Your task to perform on an android device: Open Android settings Image 0: 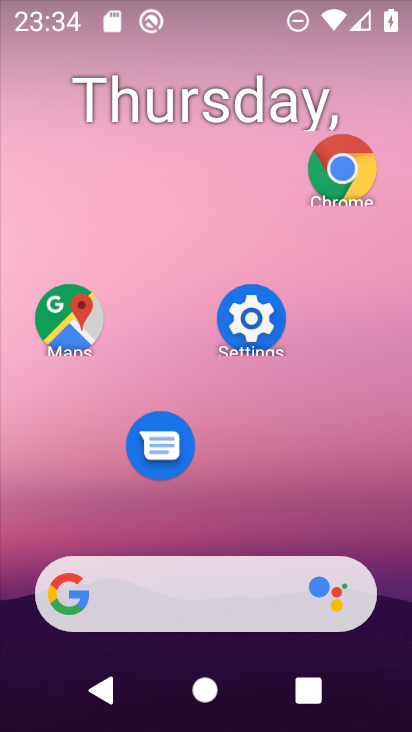
Step 0: drag from (210, 513) to (188, 114)
Your task to perform on an android device: Open Android settings Image 1: 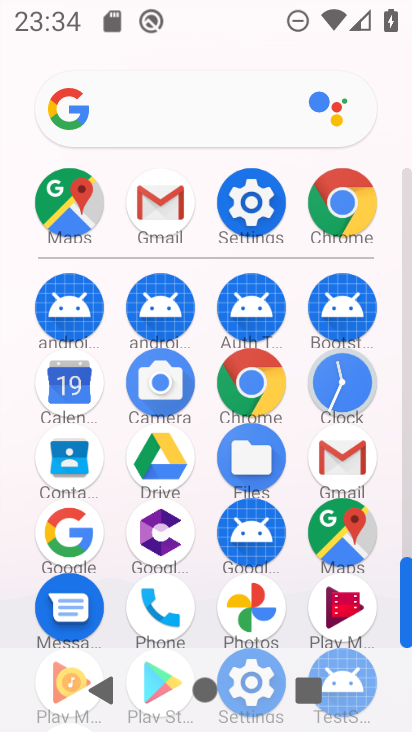
Step 1: click (241, 192)
Your task to perform on an android device: Open Android settings Image 2: 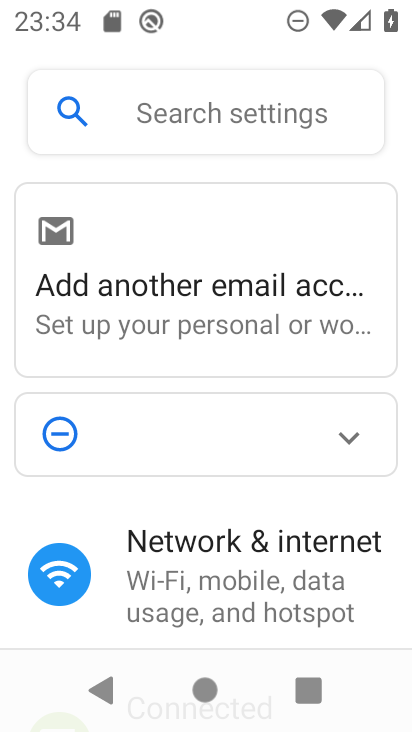
Step 2: drag from (261, 514) to (287, 111)
Your task to perform on an android device: Open Android settings Image 3: 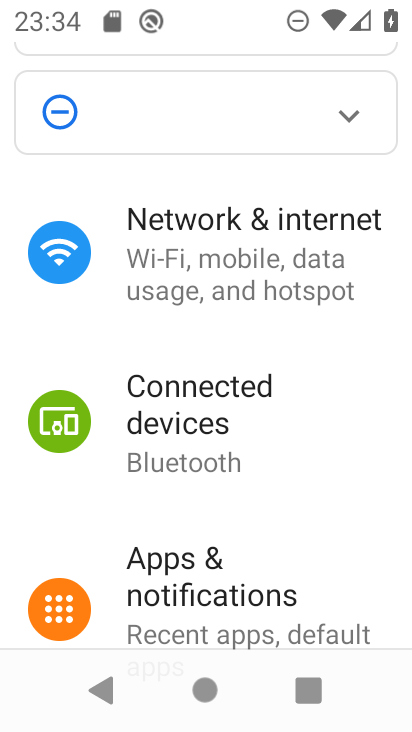
Step 3: drag from (222, 572) to (297, 111)
Your task to perform on an android device: Open Android settings Image 4: 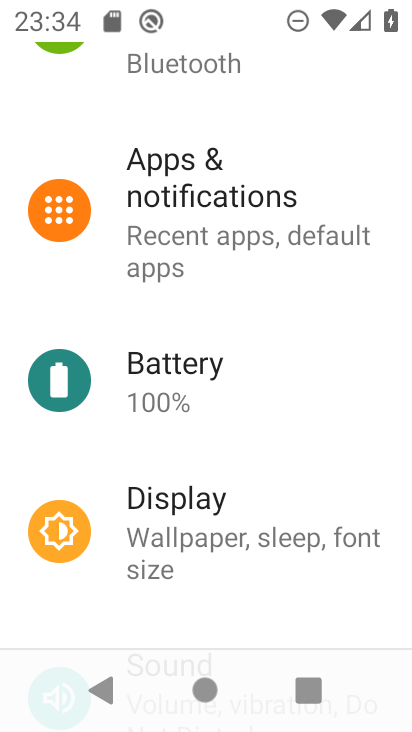
Step 4: drag from (243, 546) to (271, 152)
Your task to perform on an android device: Open Android settings Image 5: 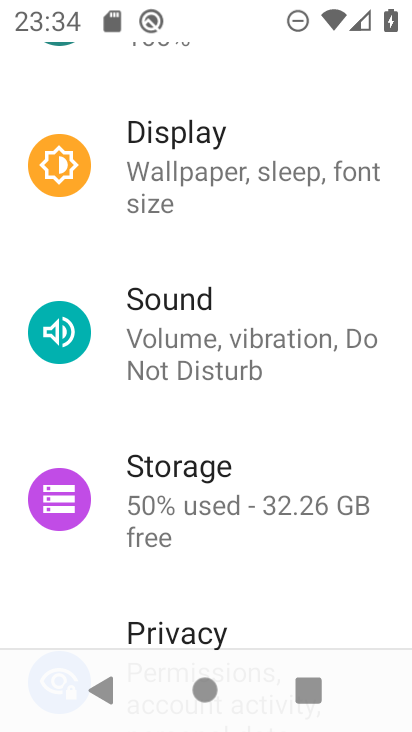
Step 5: drag from (208, 580) to (239, 177)
Your task to perform on an android device: Open Android settings Image 6: 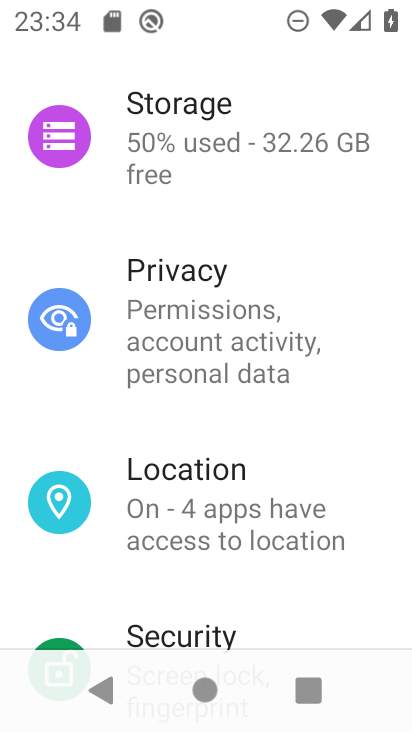
Step 6: drag from (226, 549) to (255, 164)
Your task to perform on an android device: Open Android settings Image 7: 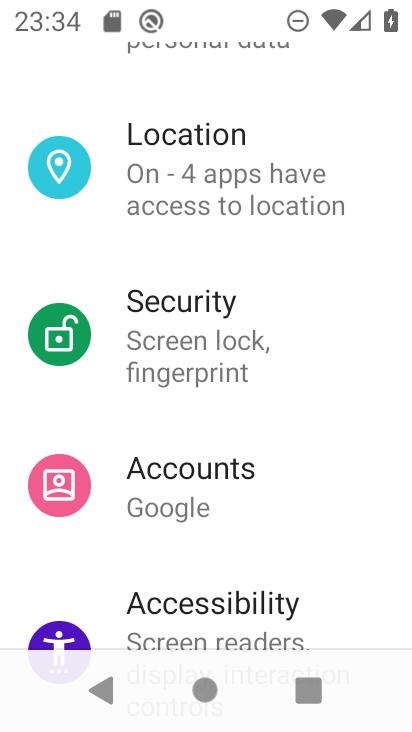
Step 7: drag from (234, 518) to (401, 524)
Your task to perform on an android device: Open Android settings Image 8: 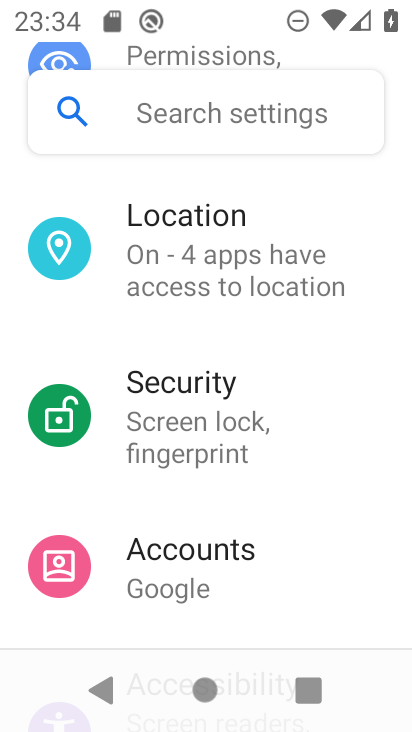
Step 8: drag from (228, 572) to (261, 173)
Your task to perform on an android device: Open Android settings Image 9: 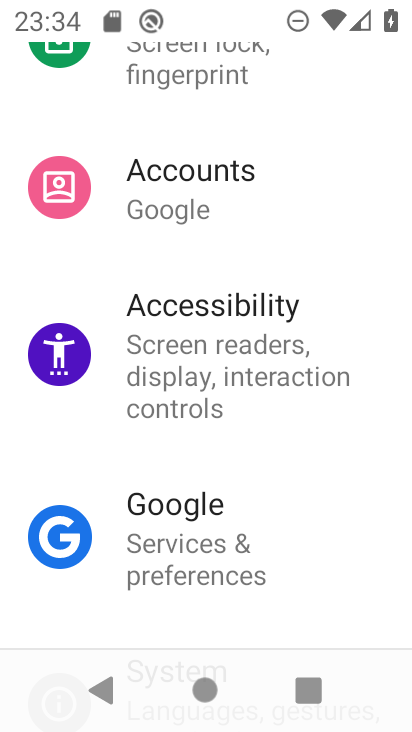
Step 9: drag from (232, 569) to (285, 143)
Your task to perform on an android device: Open Android settings Image 10: 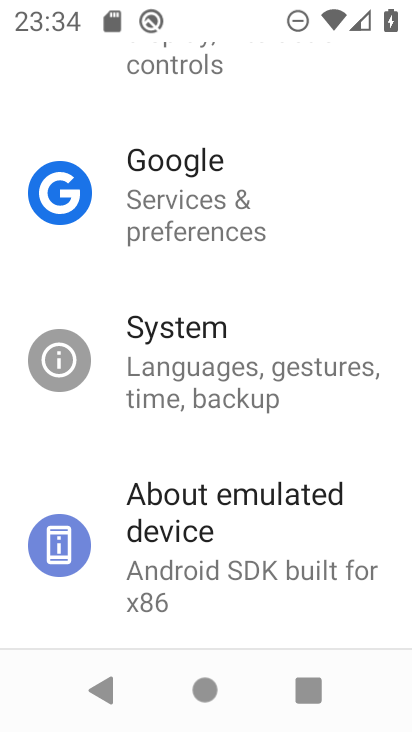
Step 10: click (202, 543)
Your task to perform on an android device: Open Android settings Image 11: 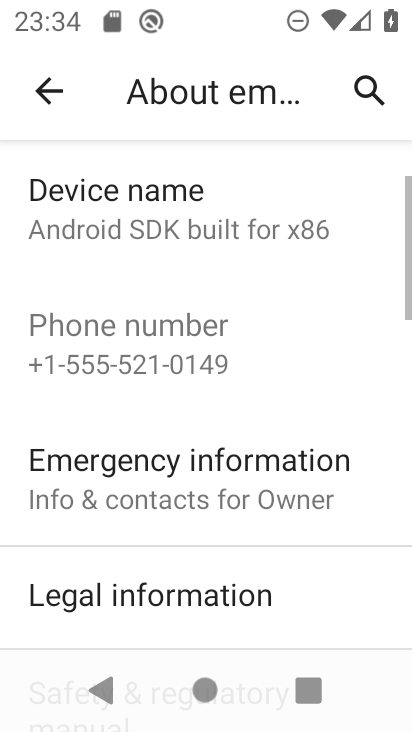
Step 11: drag from (213, 499) to (259, 115)
Your task to perform on an android device: Open Android settings Image 12: 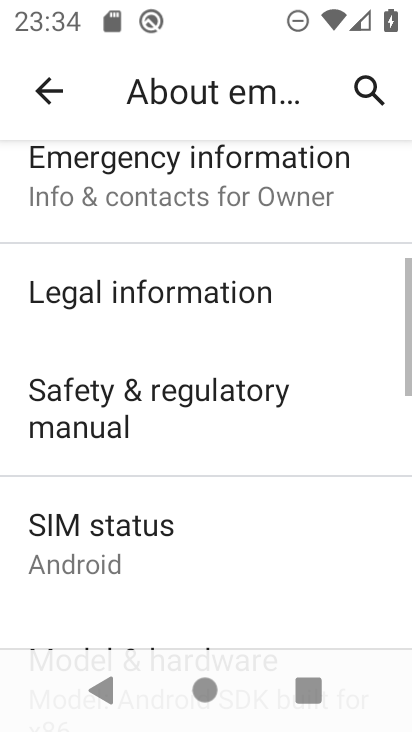
Step 12: drag from (171, 551) to (238, 177)
Your task to perform on an android device: Open Android settings Image 13: 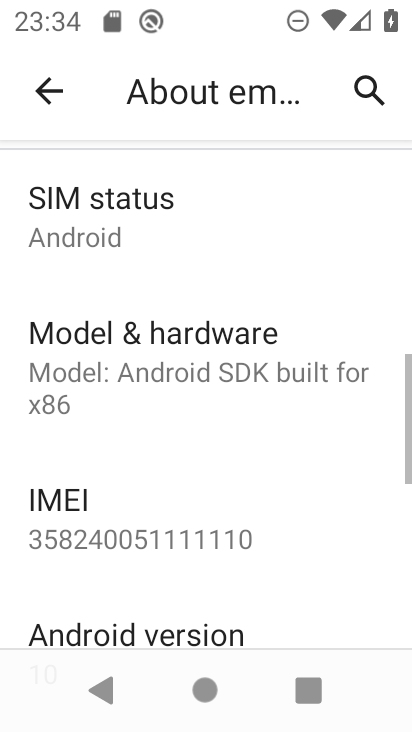
Step 13: drag from (162, 573) to (245, 215)
Your task to perform on an android device: Open Android settings Image 14: 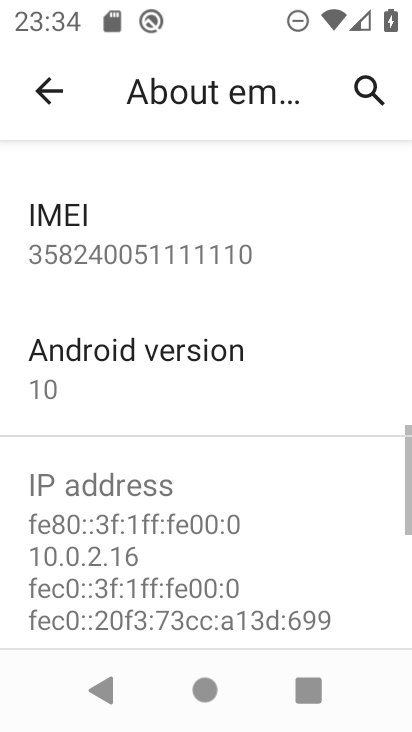
Step 14: click (173, 368)
Your task to perform on an android device: Open Android settings Image 15: 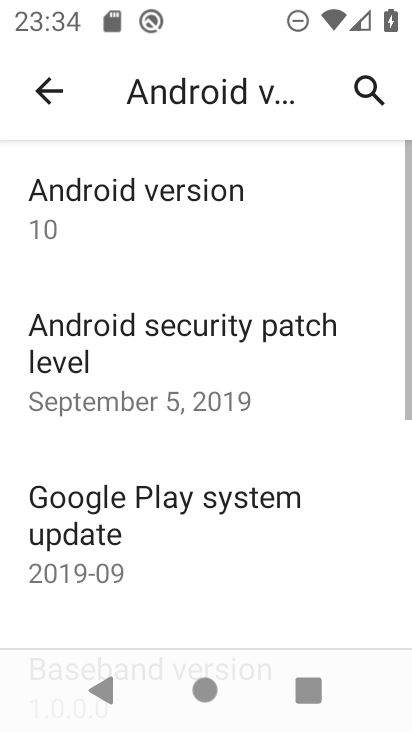
Step 15: drag from (222, 581) to (246, 182)
Your task to perform on an android device: Open Android settings Image 16: 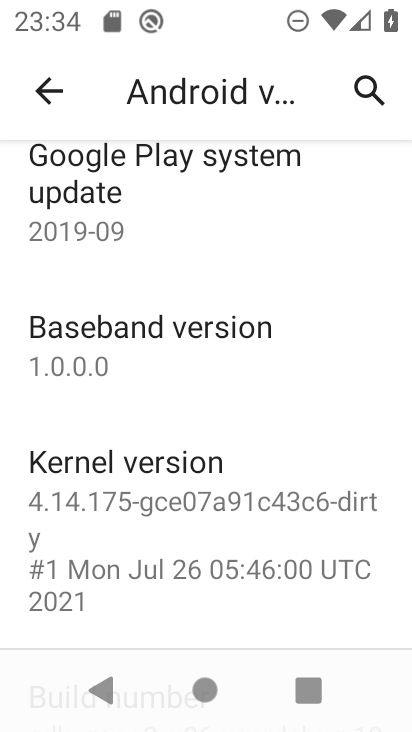
Step 16: drag from (247, 211) to (244, 629)
Your task to perform on an android device: Open Android settings Image 17: 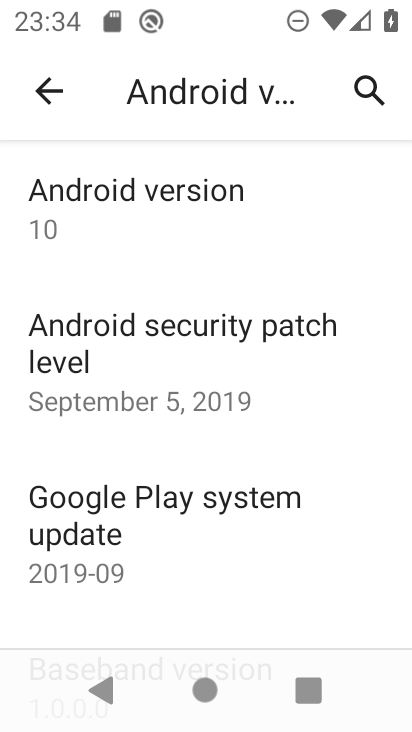
Step 17: click (147, 206)
Your task to perform on an android device: Open Android settings Image 18: 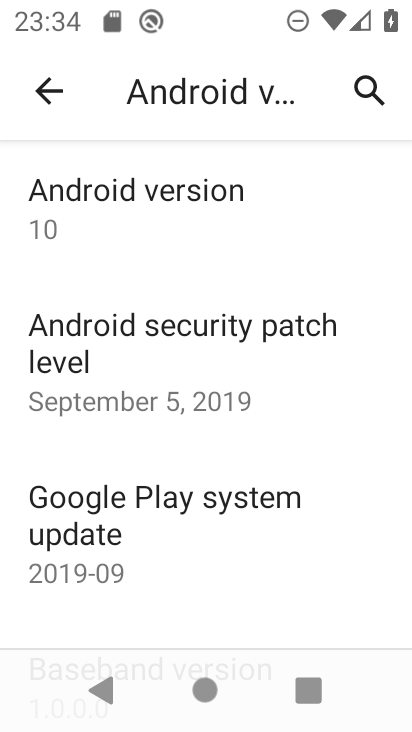
Step 18: task complete